Your task to perform on an android device: Open the calendar and show me this week's events Image 0: 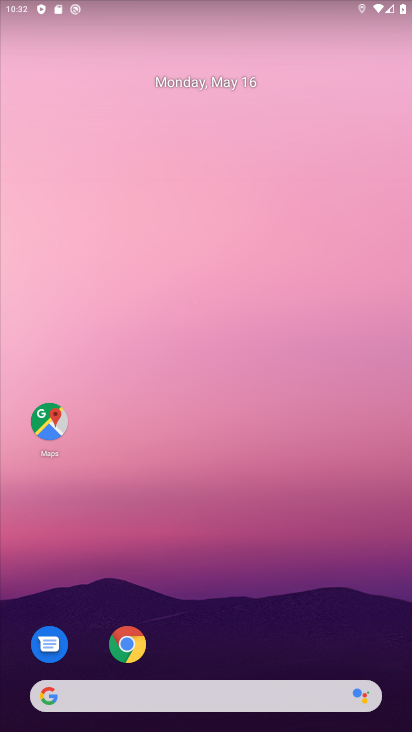
Step 0: drag from (235, 727) to (232, 161)
Your task to perform on an android device: Open the calendar and show me this week's events Image 1: 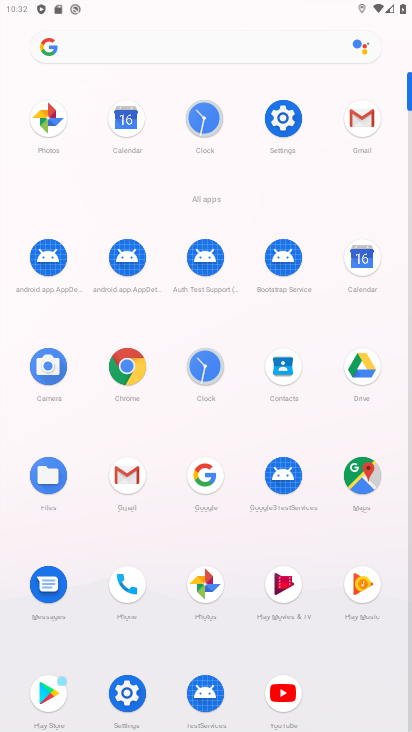
Step 1: click (366, 255)
Your task to perform on an android device: Open the calendar and show me this week's events Image 2: 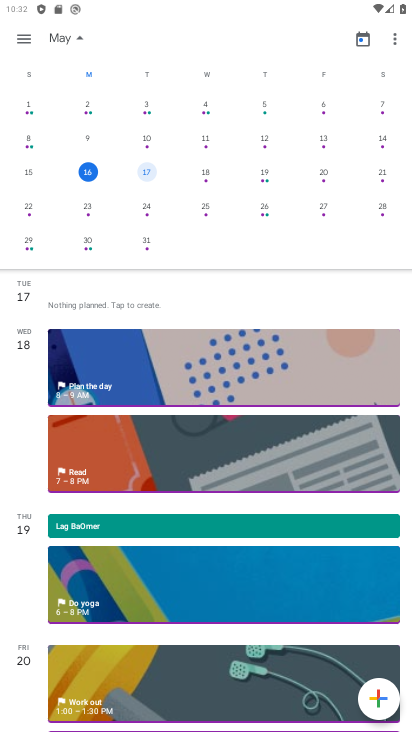
Step 2: click (22, 36)
Your task to perform on an android device: Open the calendar and show me this week's events Image 3: 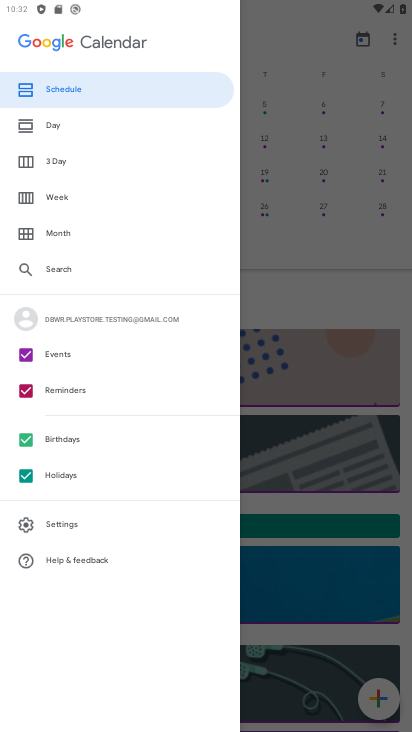
Step 3: click (22, 477)
Your task to perform on an android device: Open the calendar and show me this week's events Image 4: 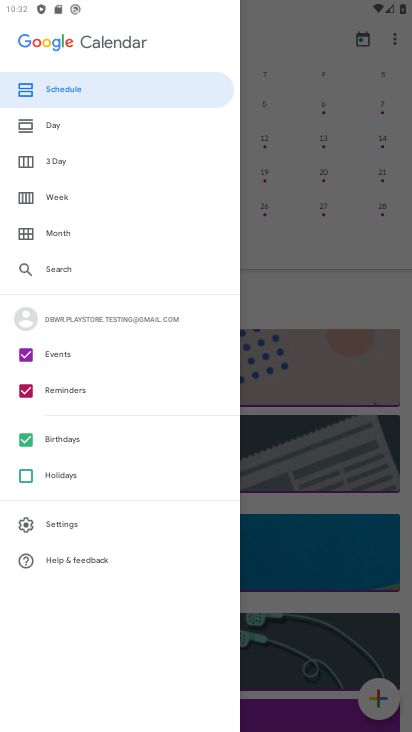
Step 4: click (28, 438)
Your task to perform on an android device: Open the calendar and show me this week's events Image 5: 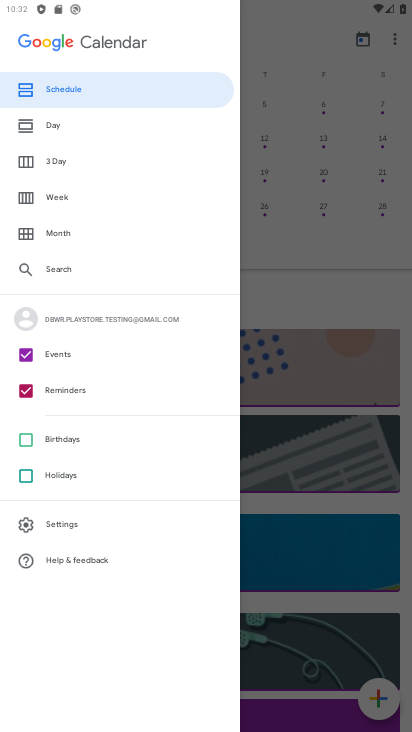
Step 5: click (25, 390)
Your task to perform on an android device: Open the calendar and show me this week's events Image 6: 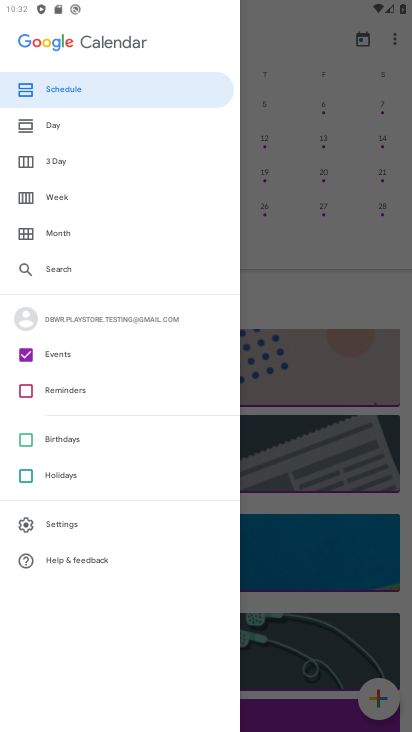
Step 6: click (61, 195)
Your task to perform on an android device: Open the calendar and show me this week's events Image 7: 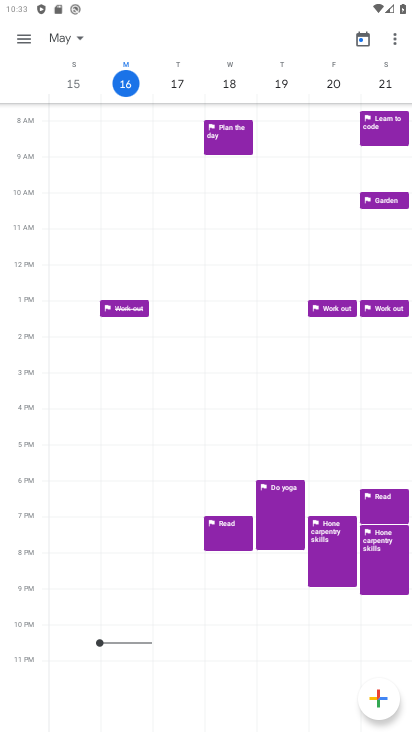
Step 7: task complete